Your task to perform on an android device: open app "The Home Depot" Image 0: 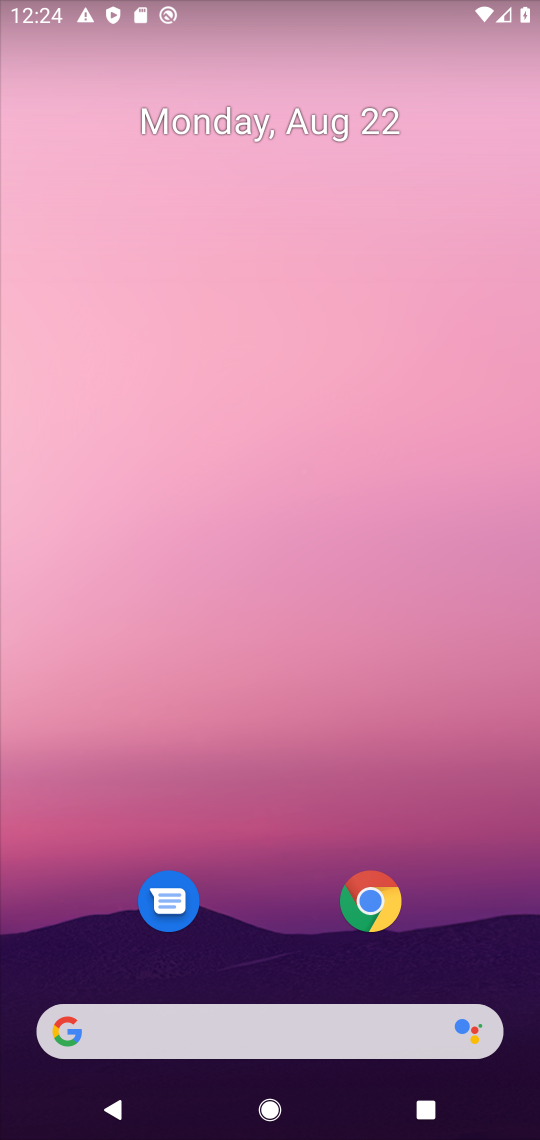
Step 0: drag from (244, 1022) to (213, 143)
Your task to perform on an android device: open app "The Home Depot" Image 1: 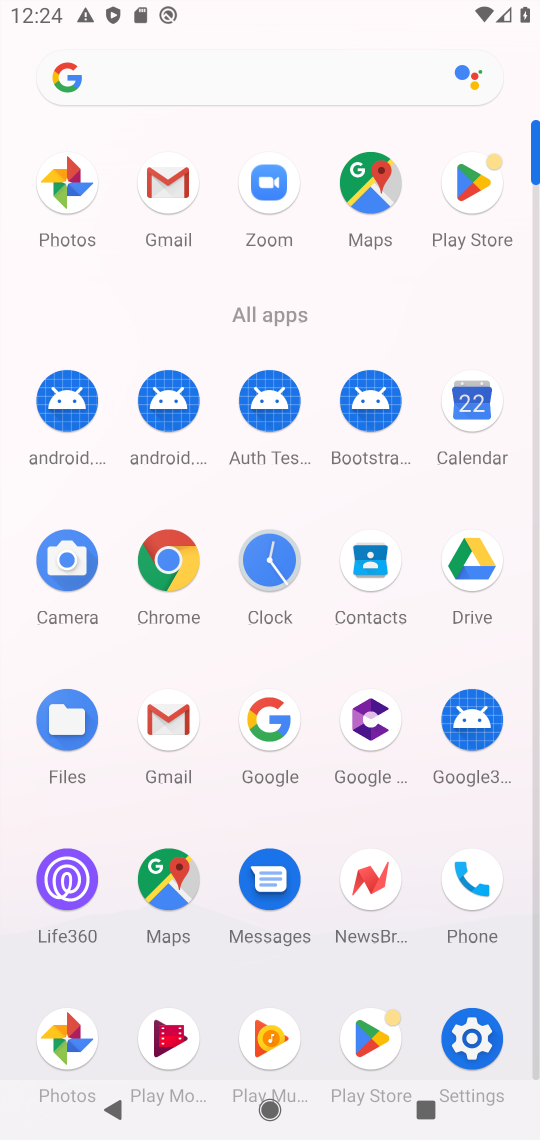
Step 1: click (480, 179)
Your task to perform on an android device: open app "The Home Depot" Image 2: 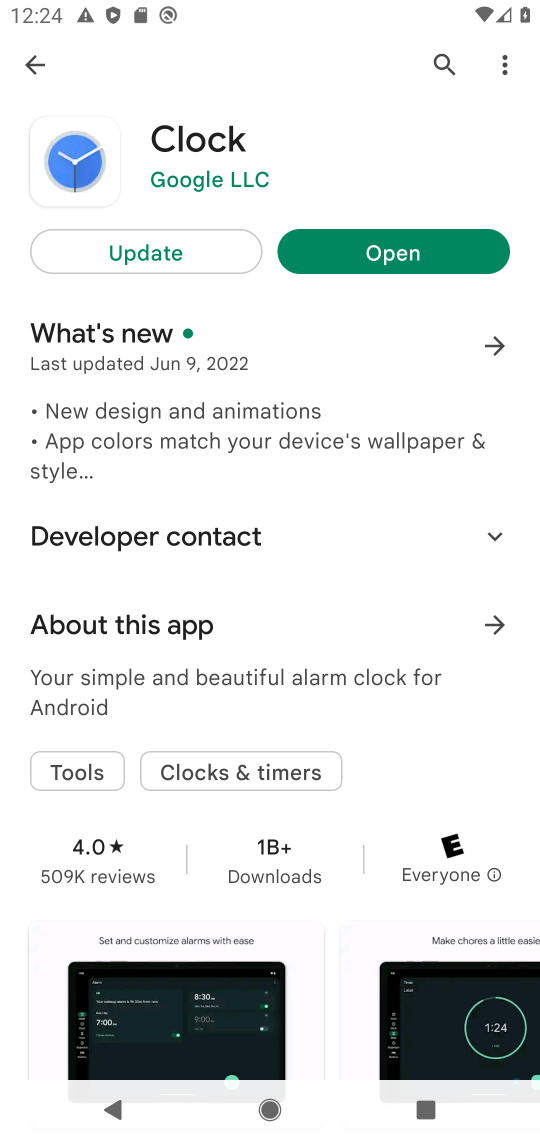
Step 2: click (447, 57)
Your task to perform on an android device: open app "The Home Depot" Image 3: 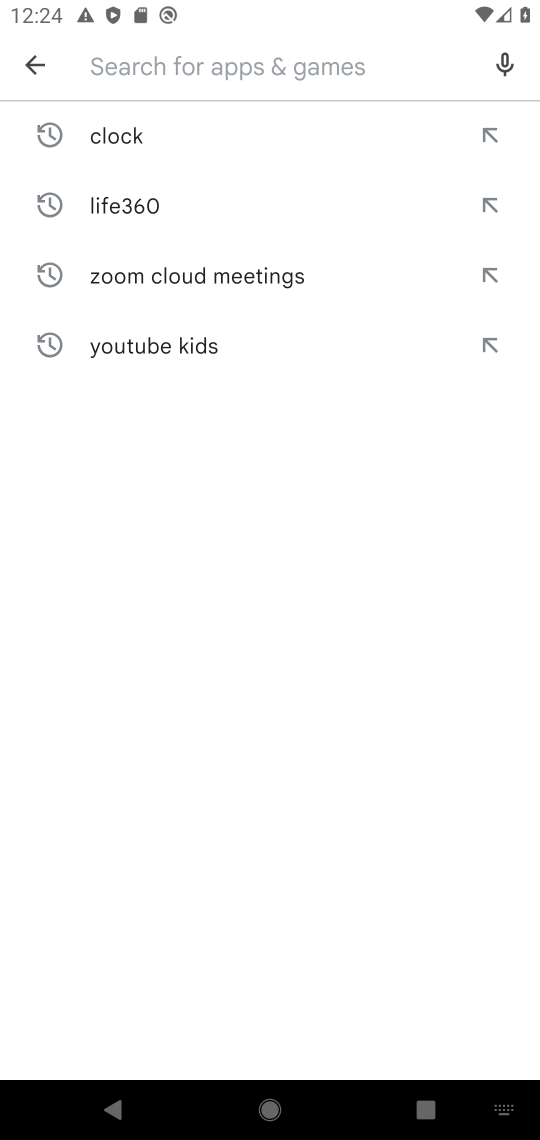
Step 3: type "the home depot"
Your task to perform on an android device: open app "The Home Depot" Image 4: 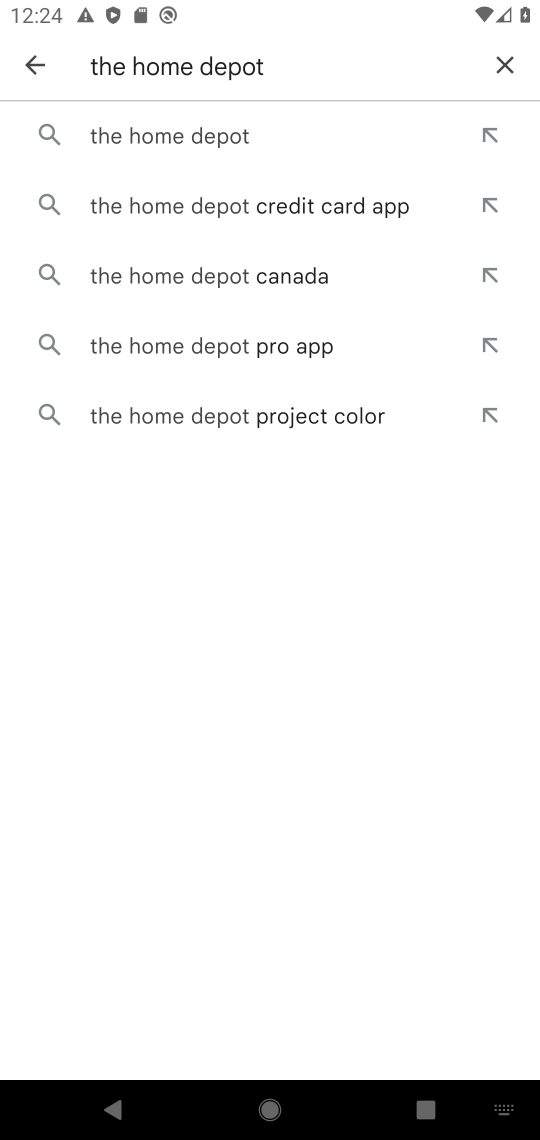
Step 4: click (255, 149)
Your task to perform on an android device: open app "The Home Depot" Image 5: 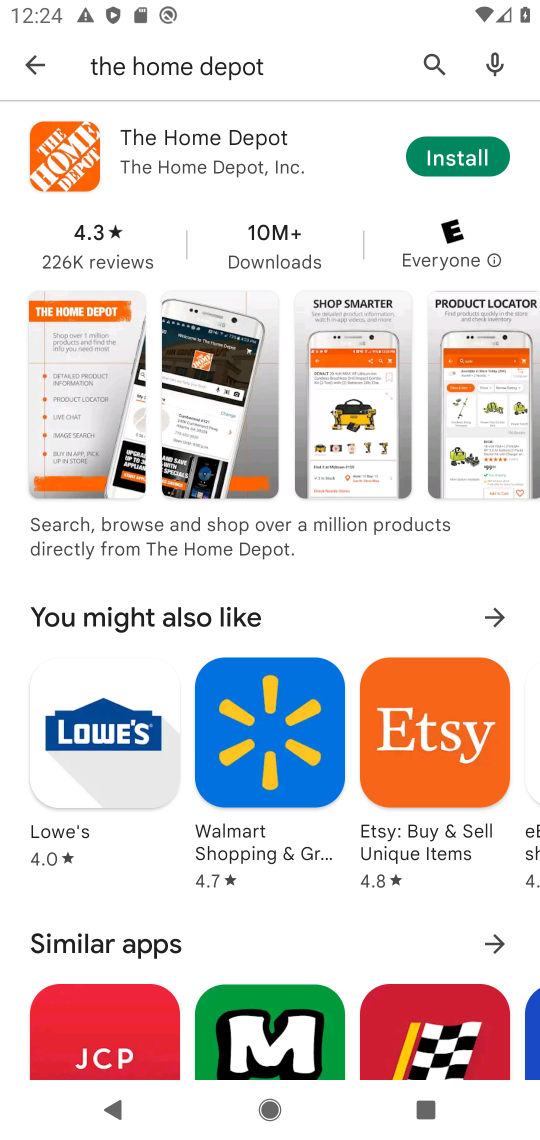
Step 5: task complete